Your task to perform on an android device: delete browsing data in the chrome app Image 0: 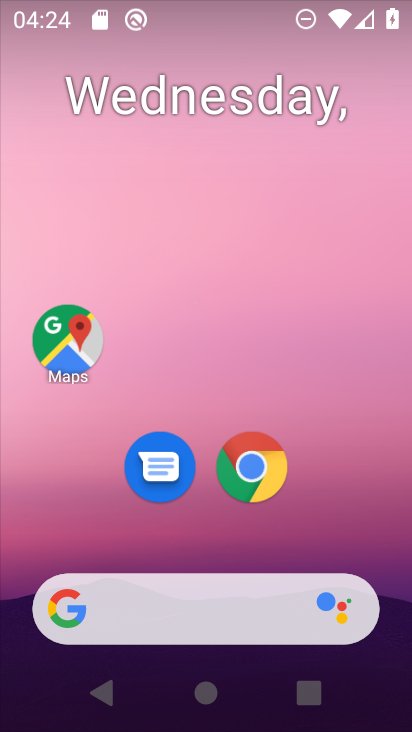
Step 0: click (247, 464)
Your task to perform on an android device: delete browsing data in the chrome app Image 1: 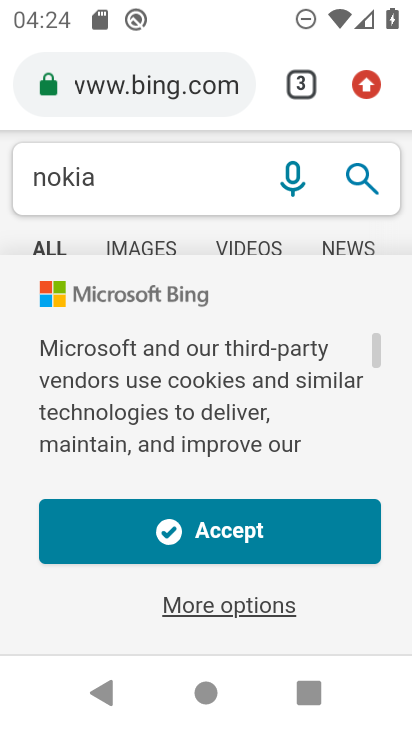
Step 1: click (363, 89)
Your task to perform on an android device: delete browsing data in the chrome app Image 2: 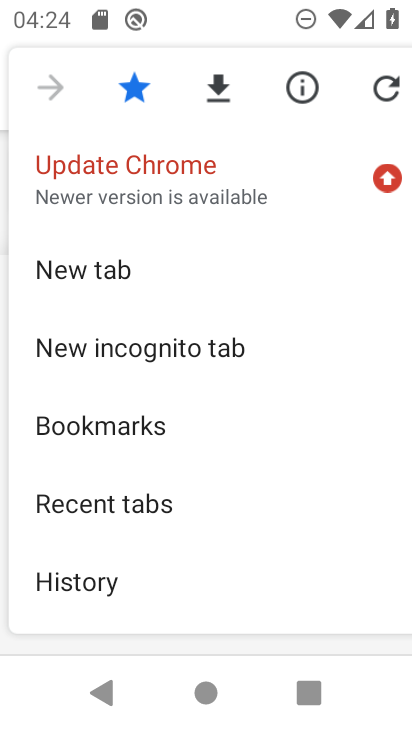
Step 2: drag from (239, 526) to (277, 237)
Your task to perform on an android device: delete browsing data in the chrome app Image 3: 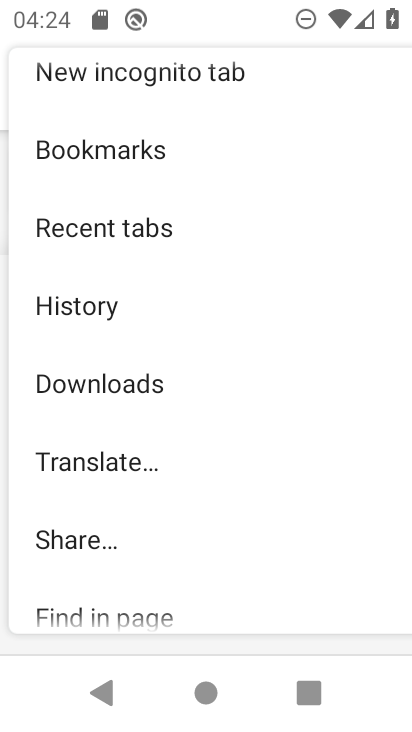
Step 3: click (49, 305)
Your task to perform on an android device: delete browsing data in the chrome app Image 4: 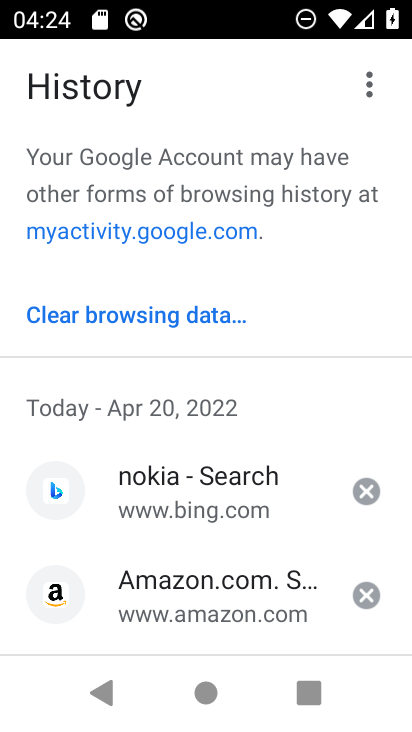
Step 4: click (120, 317)
Your task to perform on an android device: delete browsing data in the chrome app Image 5: 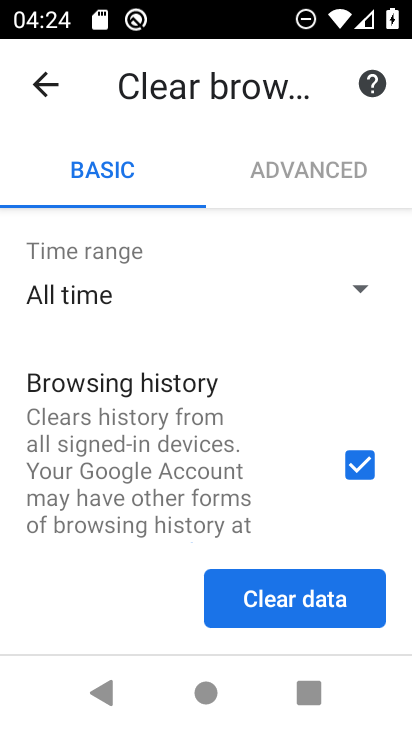
Step 5: drag from (217, 493) to (286, 205)
Your task to perform on an android device: delete browsing data in the chrome app Image 6: 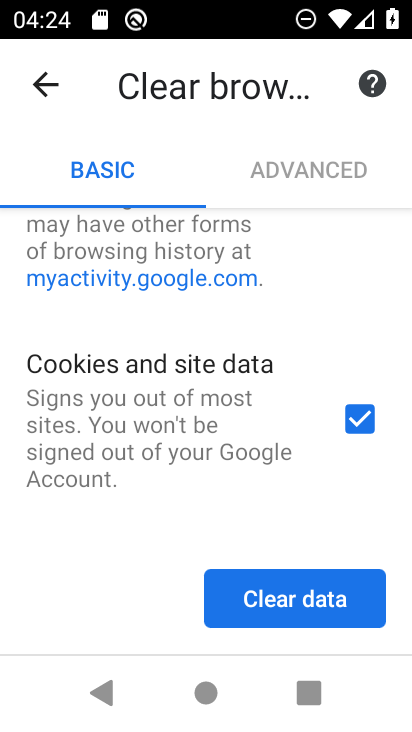
Step 6: click (358, 420)
Your task to perform on an android device: delete browsing data in the chrome app Image 7: 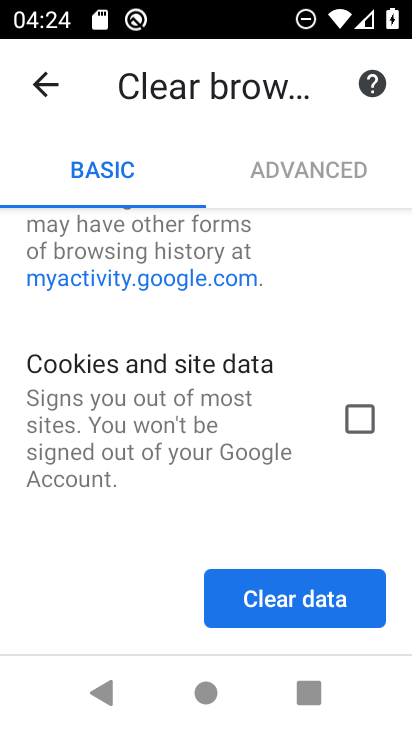
Step 7: drag from (197, 448) to (256, 179)
Your task to perform on an android device: delete browsing data in the chrome app Image 8: 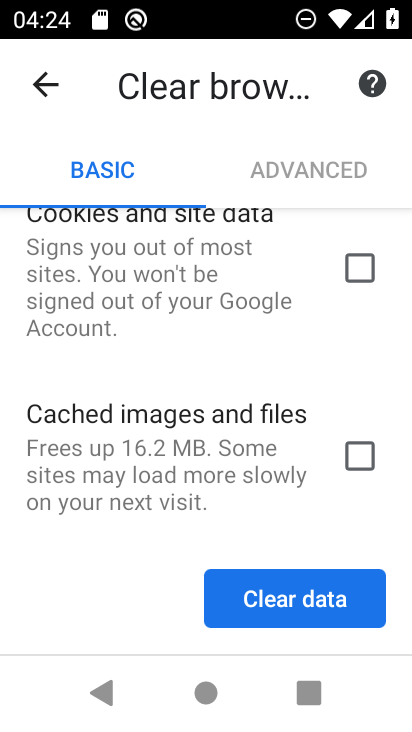
Step 8: drag from (236, 469) to (258, 167)
Your task to perform on an android device: delete browsing data in the chrome app Image 9: 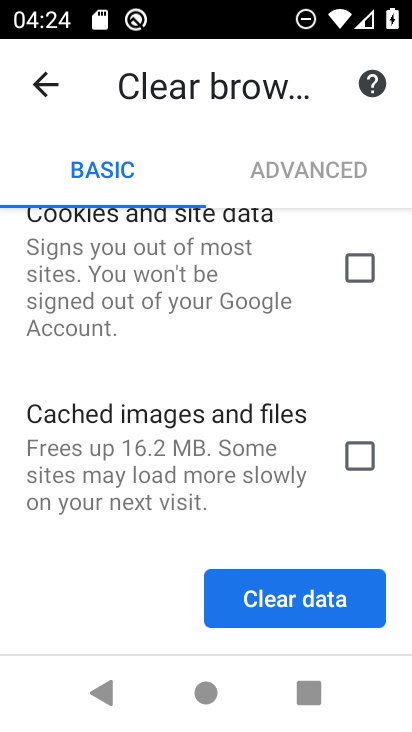
Step 9: click (295, 593)
Your task to perform on an android device: delete browsing data in the chrome app Image 10: 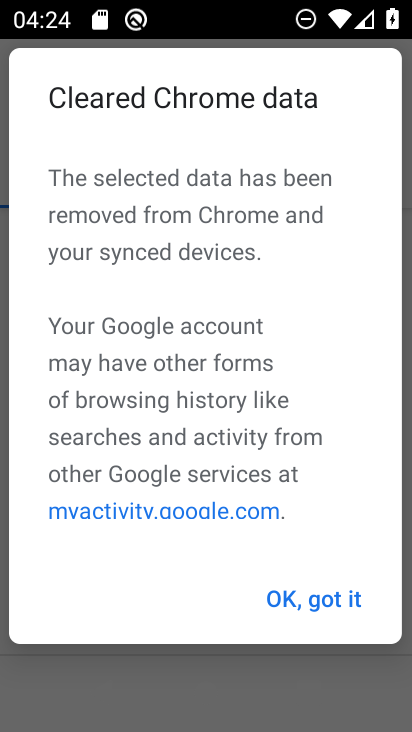
Step 10: click (295, 593)
Your task to perform on an android device: delete browsing data in the chrome app Image 11: 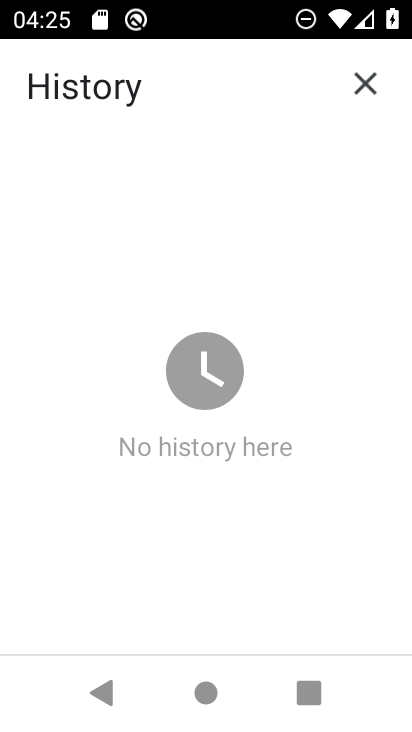
Step 11: task complete